Your task to perform on an android device: Go to Reddit.com Image 0: 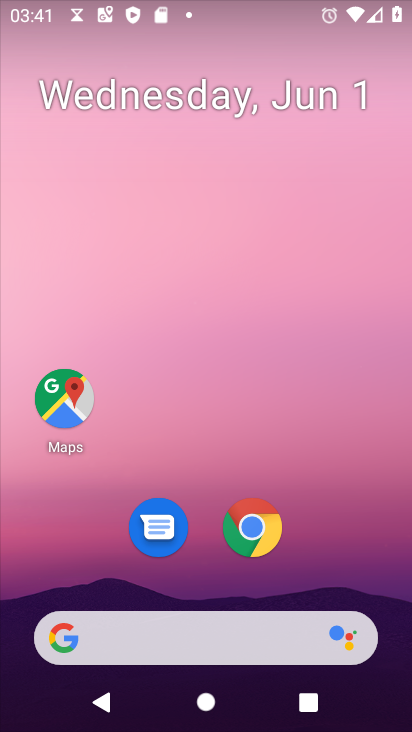
Step 0: click (253, 526)
Your task to perform on an android device: Go to Reddit.com Image 1: 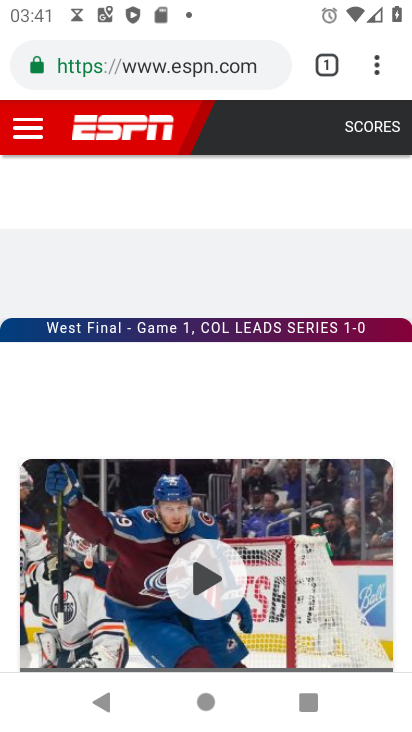
Step 1: click (277, 68)
Your task to perform on an android device: Go to Reddit.com Image 2: 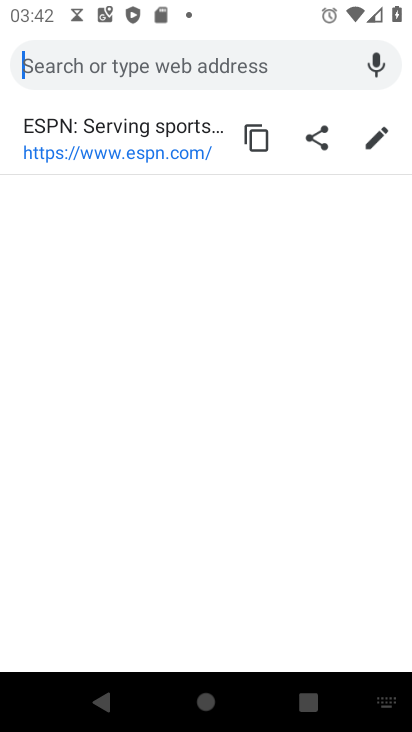
Step 2: type "Reddit.com"
Your task to perform on an android device: Go to Reddit.com Image 3: 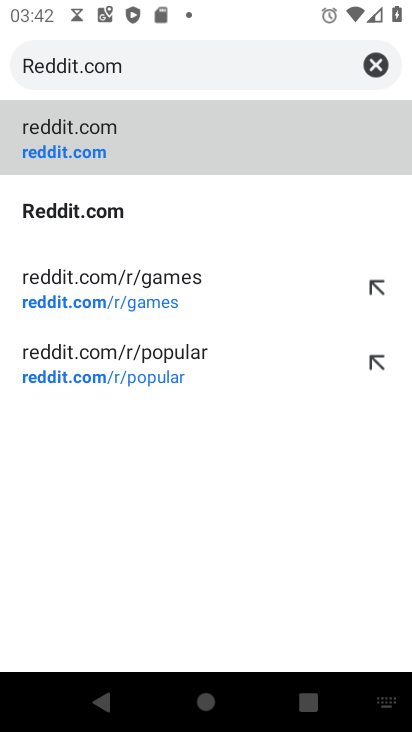
Step 3: click (153, 219)
Your task to perform on an android device: Go to Reddit.com Image 4: 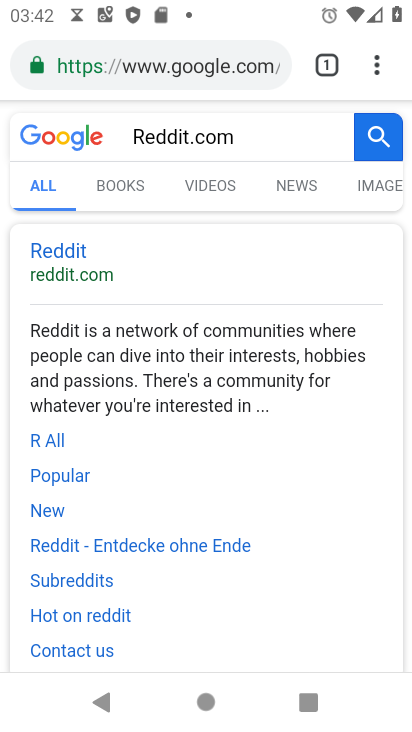
Step 4: click (80, 278)
Your task to perform on an android device: Go to Reddit.com Image 5: 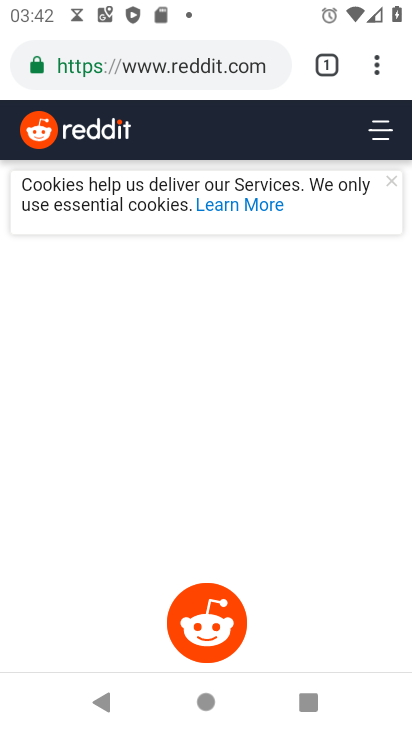
Step 5: task complete